Your task to perform on an android device: Search for vegetarian restaurants on Maps Image 0: 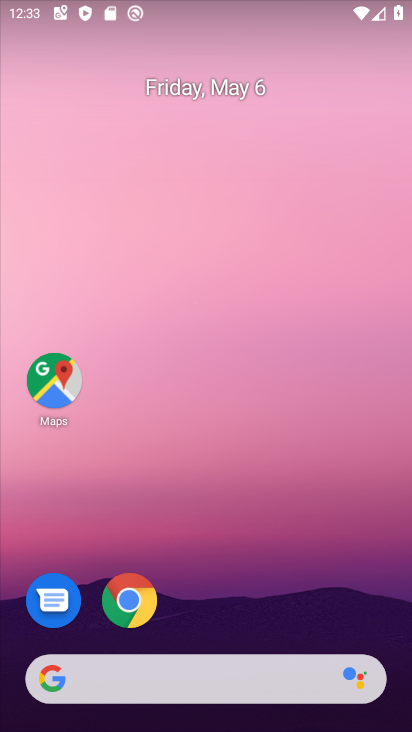
Step 0: drag from (329, 613) to (216, 55)
Your task to perform on an android device: Search for vegetarian restaurants on Maps Image 1: 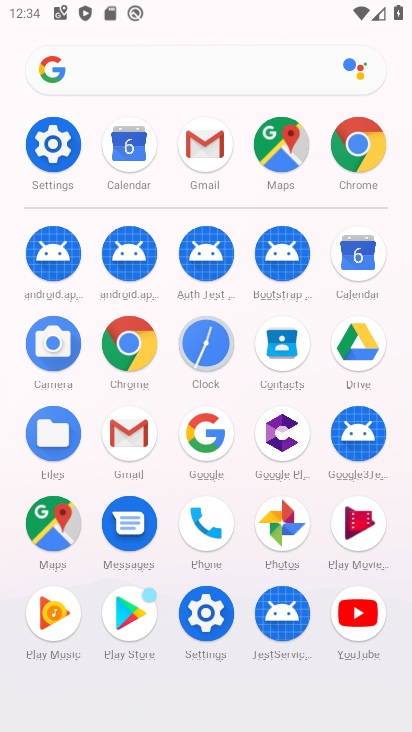
Step 1: click (286, 138)
Your task to perform on an android device: Search for vegetarian restaurants on Maps Image 2: 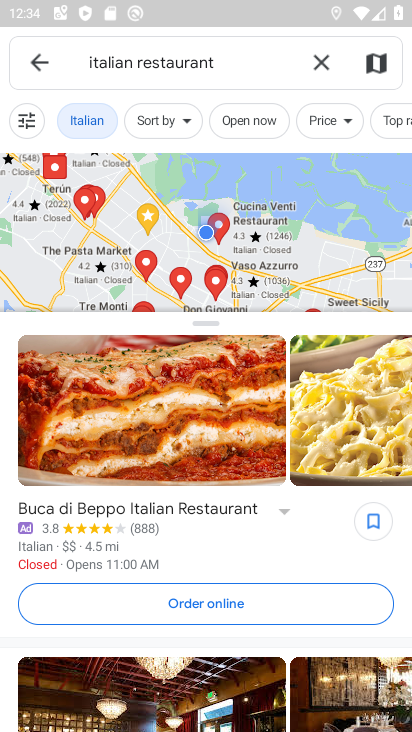
Step 2: click (323, 59)
Your task to perform on an android device: Search for vegetarian restaurants on Maps Image 3: 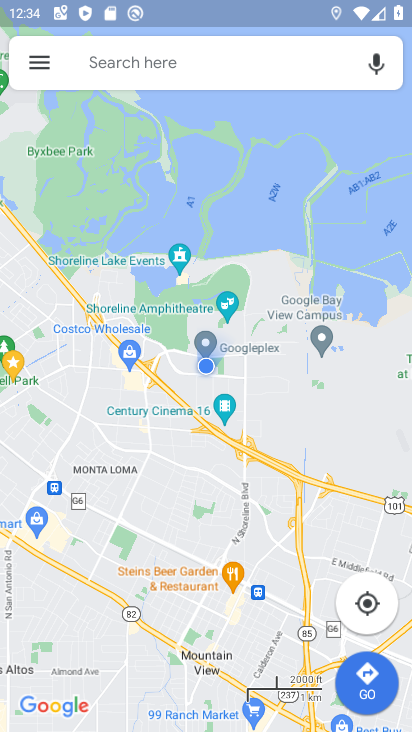
Step 3: click (272, 57)
Your task to perform on an android device: Search for vegetarian restaurants on Maps Image 4: 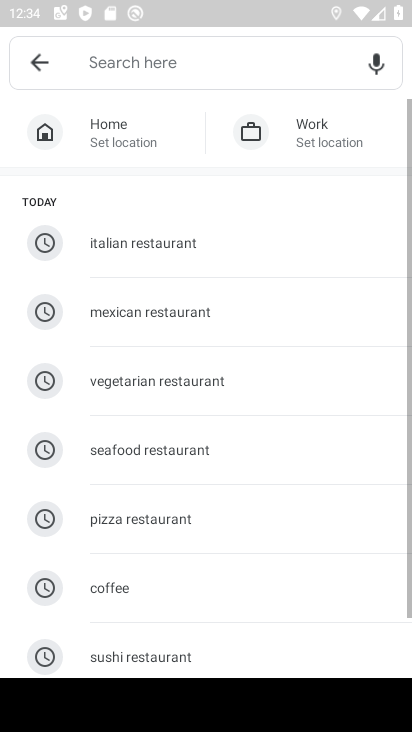
Step 4: click (218, 374)
Your task to perform on an android device: Search for vegetarian restaurants on Maps Image 5: 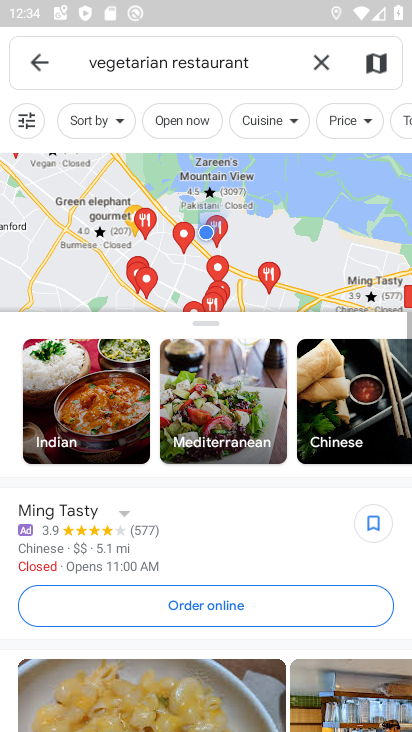
Step 5: task complete